Your task to perform on an android device: visit the assistant section in the google photos Image 0: 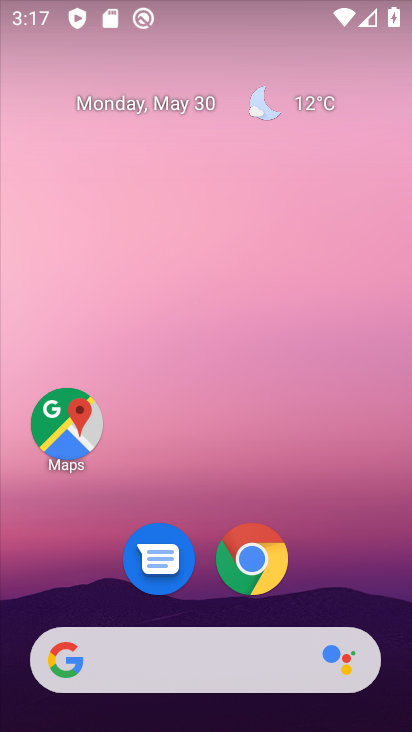
Step 0: click (223, 136)
Your task to perform on an android device: visit the assistant section in the google photos Image 1: 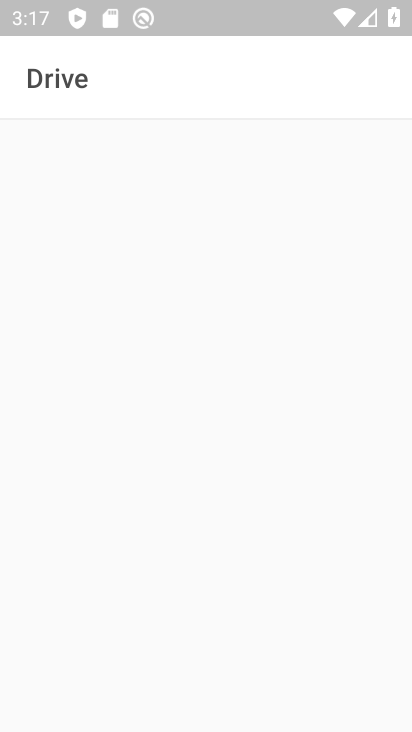
Step 1: press home button
Your task to perform on an android device: visit the assistant section in the google photos Image 2: 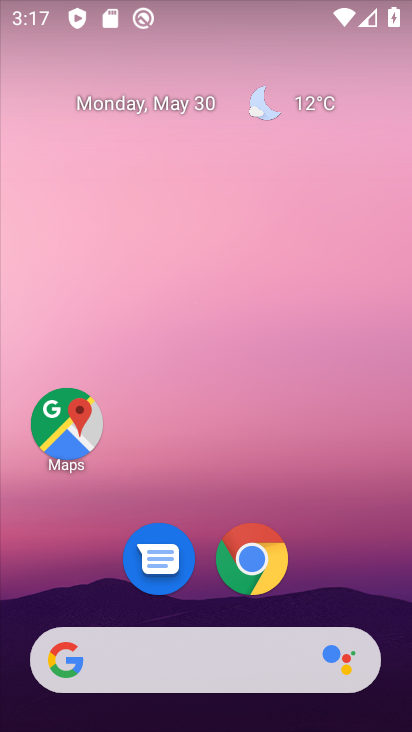
Step 2: drag from (232, 692) to (235, 94)
Your task to perform on an android device: visit the assistant section in the google photos Image 3: 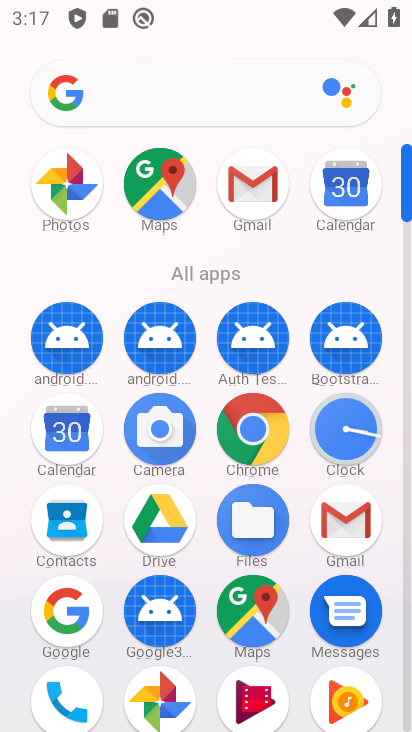
Step 3: drag from (302, 644) to (301, 311)
Your task to perform on an android device: visit the assistant section in the google photos Image 4: 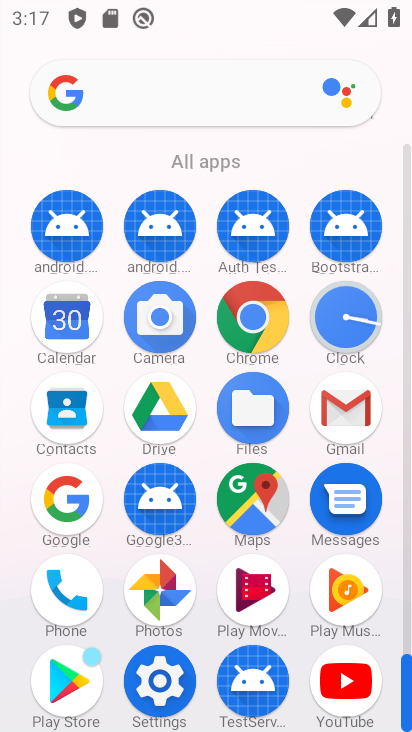
Step 4: click (180, 585)
Your task to perform on an android device: visit the assistant section in the google photos Image 5: 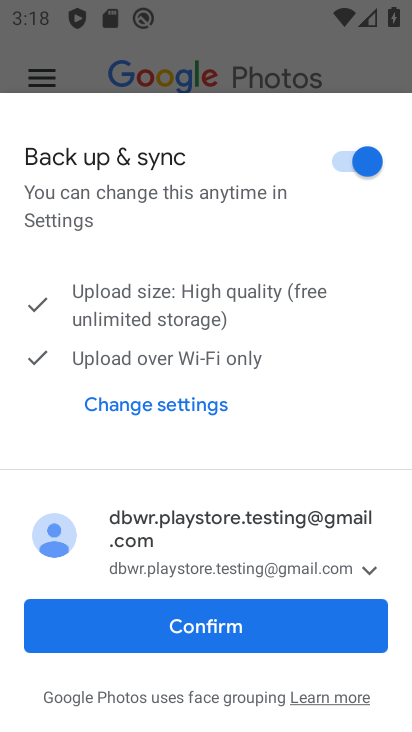
Step 5: click (241, 630)
Your task to perform on an android device: visit the assistant section in the google photos Image 6: 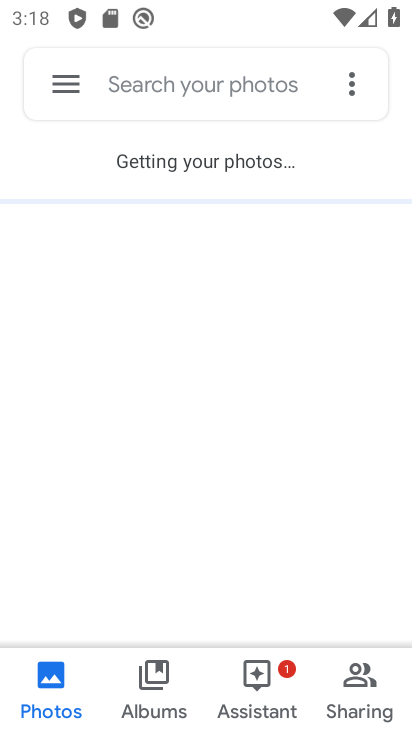
Step 6: click (258, 678)
Your task to perform on an android device: visit the assistant section in the google photos Image 7: 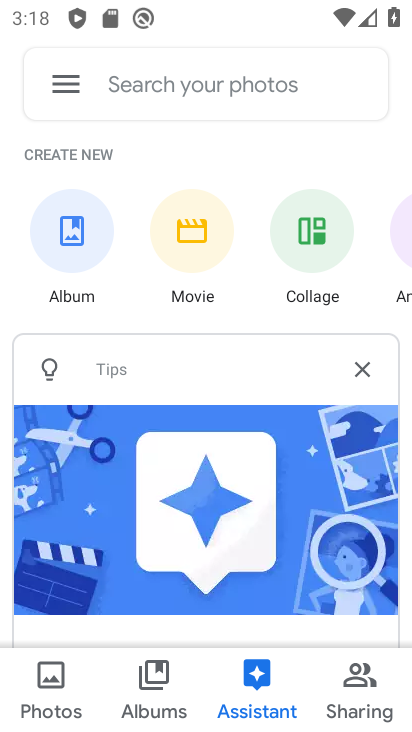
Step 7: task complete